Your task to perform on an android device: What's the latest video from GameSpot? Image 0: 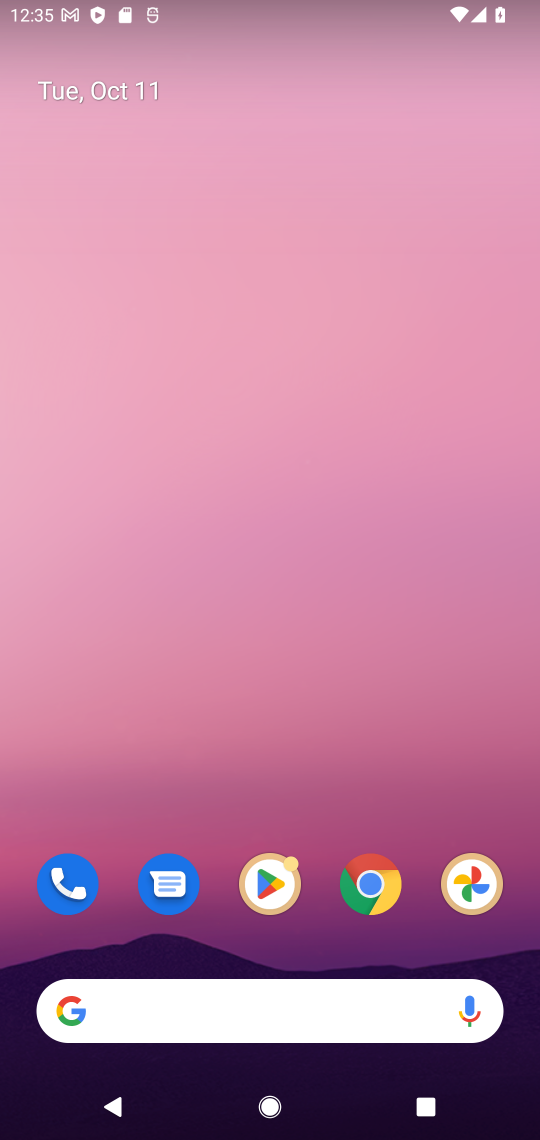
Step 0: drag from (161, 980) to (85, 298)
Your task to perform on an android device: What's the latest video from GameSpot? Image 1: 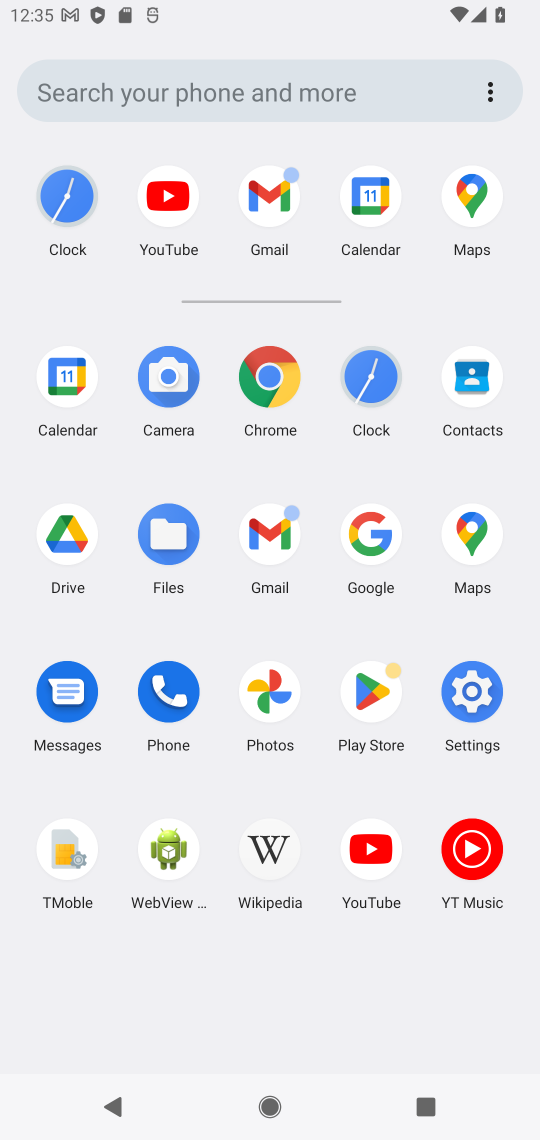
Step 1: click (363, 535)
Your task to perform on an android device: What's the latest video from GameSpot? Image 2: 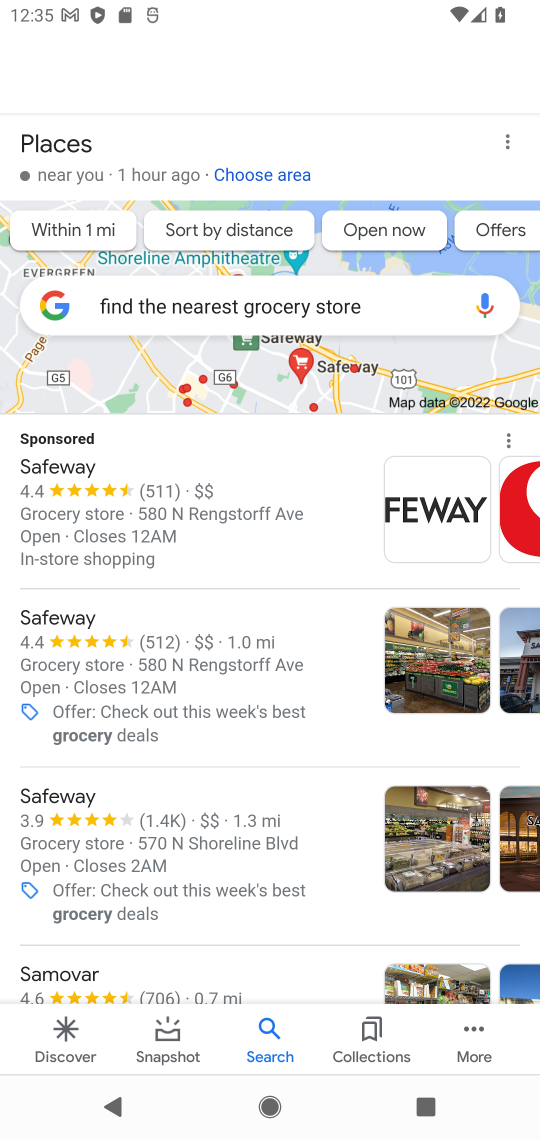
Step 2: click (123, 149)
Your task to perform on an android device: What's the latest video from GameSpot? Image 3: 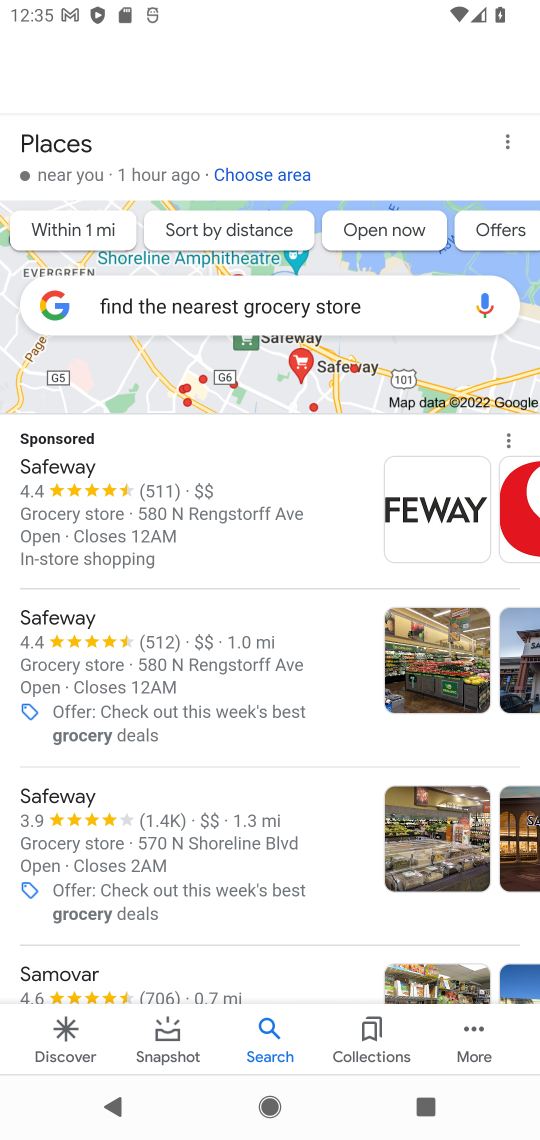
Step 3: click (84, 136)
Your task to perform on an android device: What's the latest video from GameSpot? Image 4: 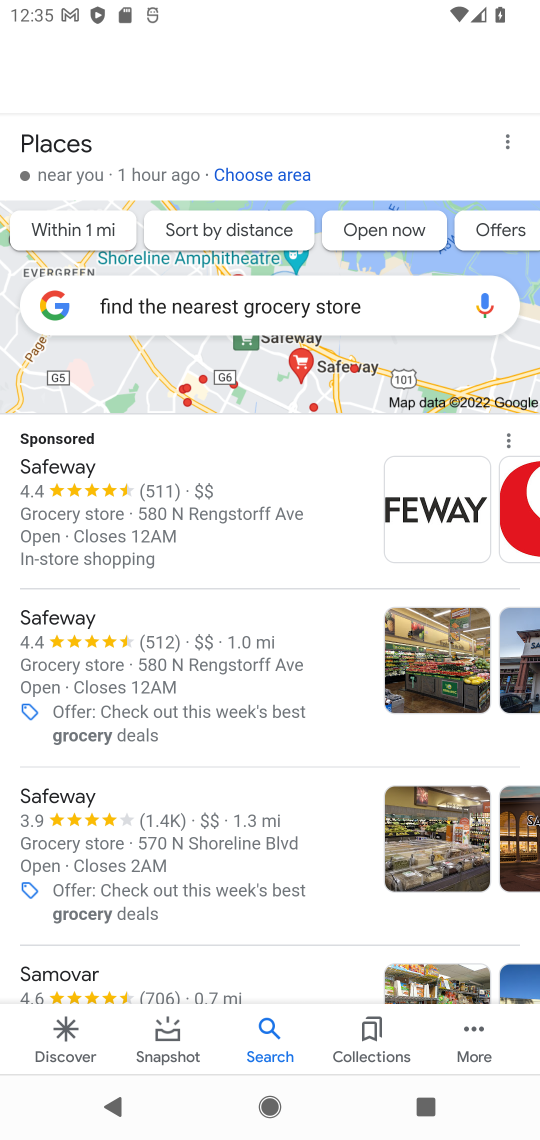
Step 4: click (166, 309)
Your task to perform on an android device: What's the latest video from GameSpot? Image 5: 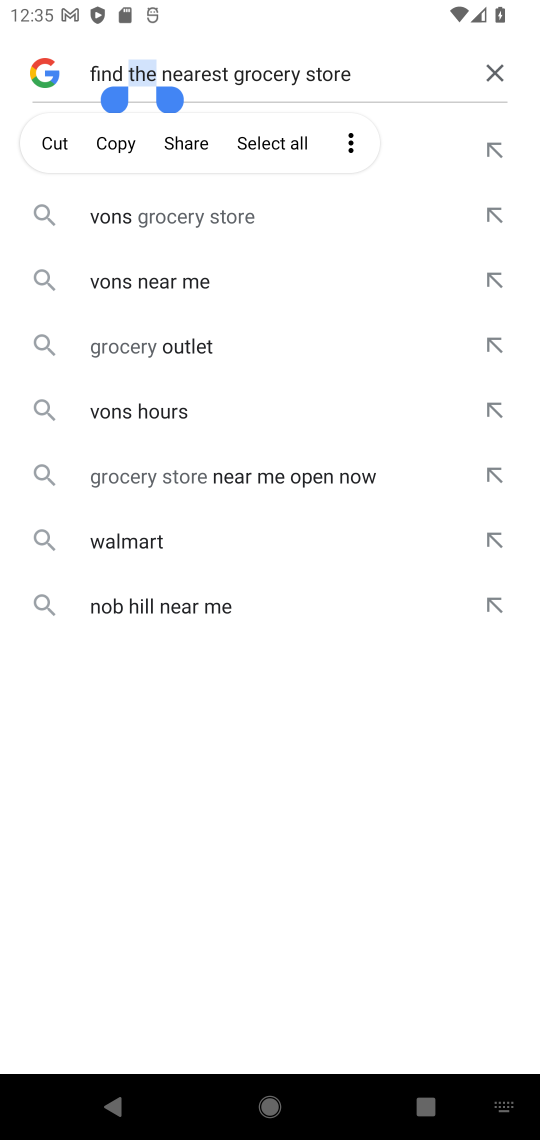
Step 5: click (269, 70)
Your task to perform on an android device: What's the latest video from GameSpot? Image 6: 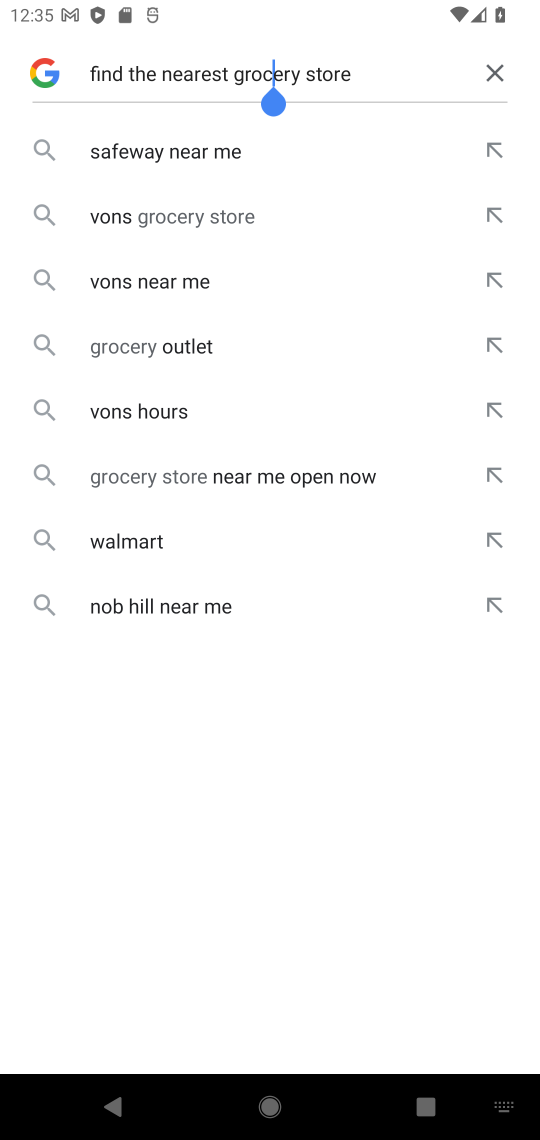
Step 6: click (494, 77)
Your task to perform on an android device: What's the latest video from GameSpot? Image 7: 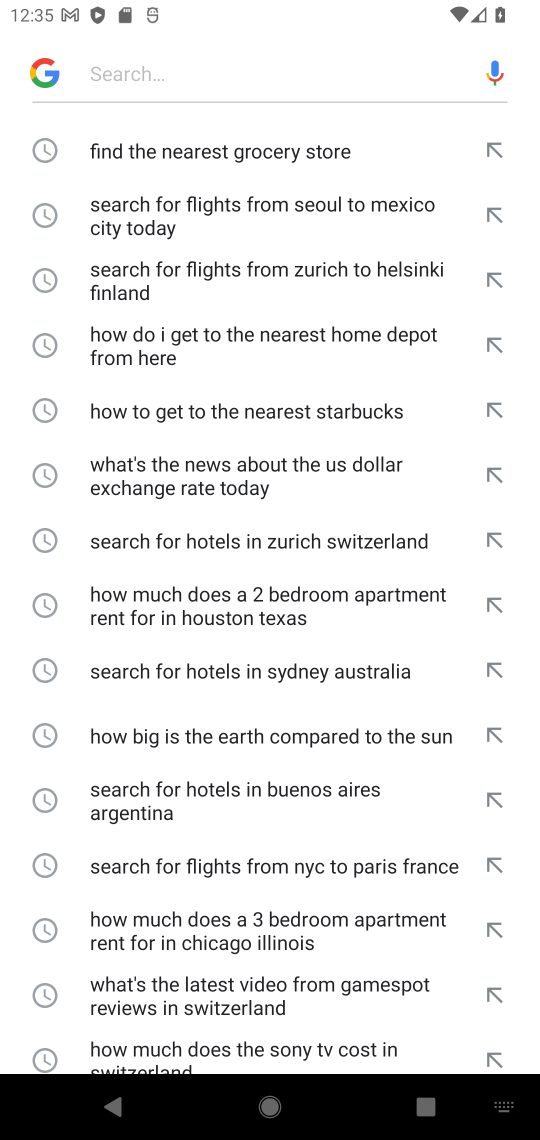
Step 7: type "What's the latest video from GameSpot?"
Your task to perform on an android device: What's the latest video from GameSpot? Image 8: 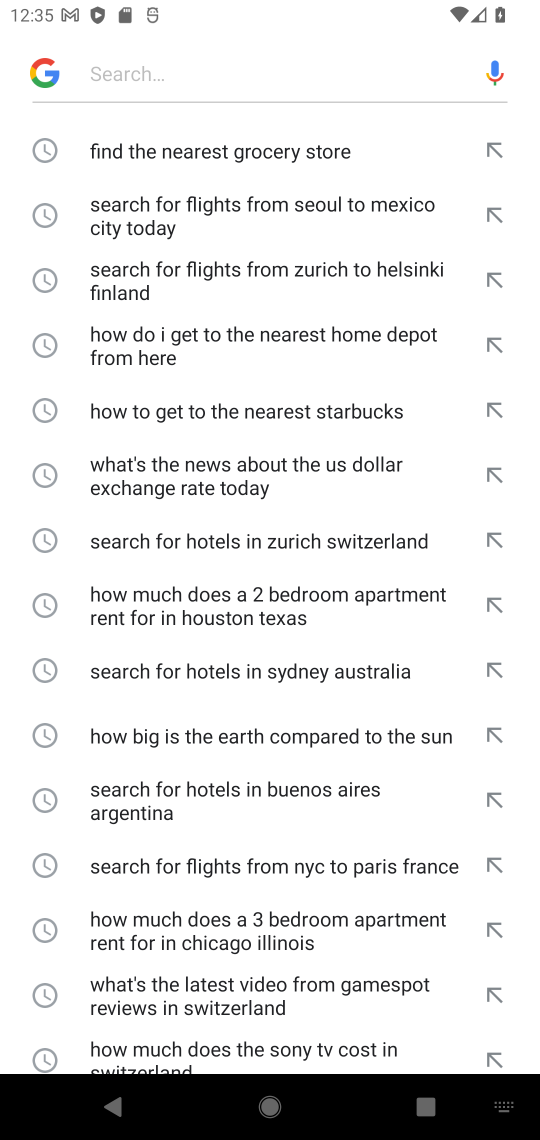
Step 8: click (297, 150)
Your task to perform on an android device: What's the latest video from GameSpot? Image 9: 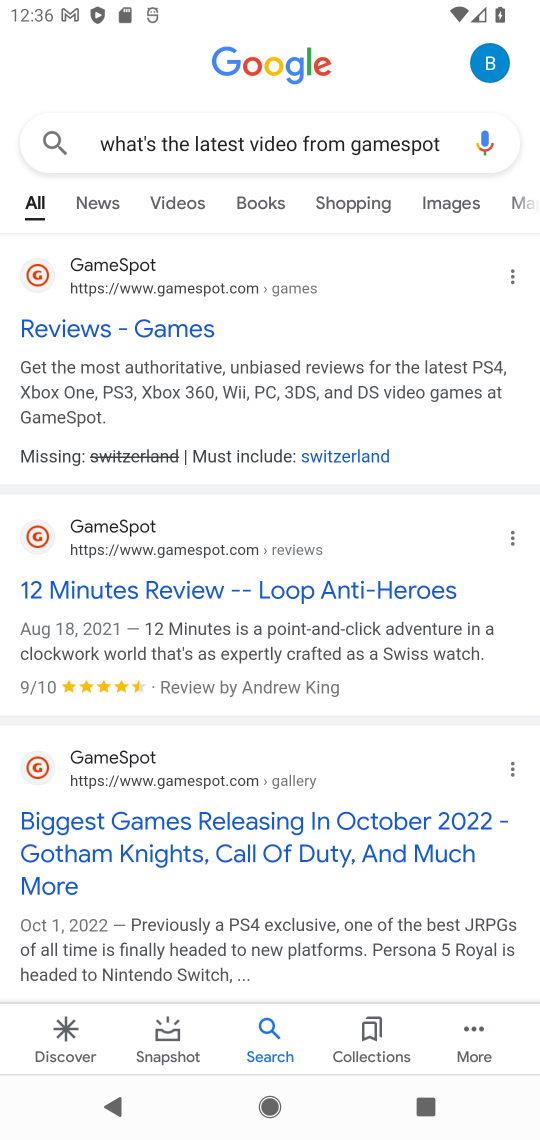
Step 9: task complete